Your task to perform on an android device: Open maps Image 0: 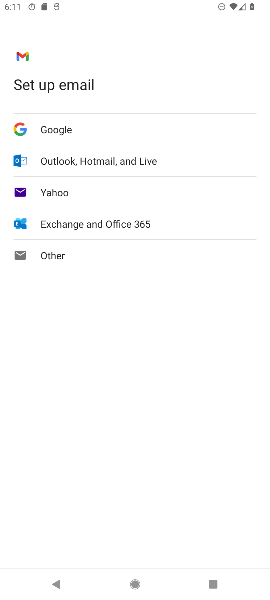
Step 0: press back button
Your task to perform on an android device: Open maps Image 1: 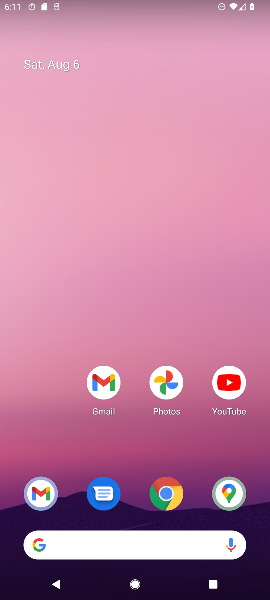
Step 1: drag from (135, 525) to (99, 276)
Your task to perform on an android device: Open maps Image 2: 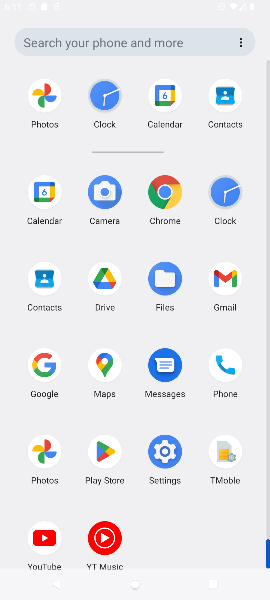
Step 2: drag from (102, 474) to (70, 216)
Your task to perform on an android device: Open maps Image 3: 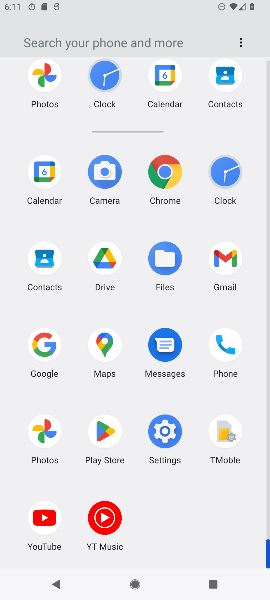
Step 3: click (99, 348)
Your task to perform on an android device: Open maps Image 4: 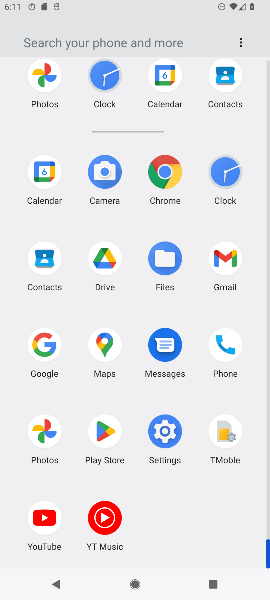
Step 4: click (99, 348)
Your task to perform on an android device: Open maps Image 5: 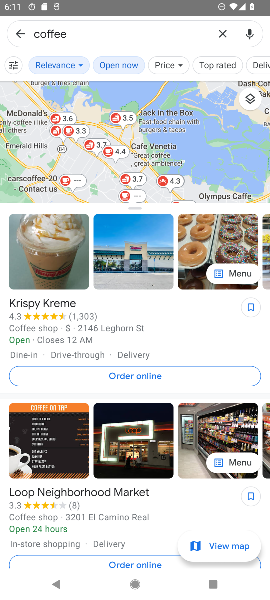
Step 5: task complete